Your task to perform on an android device: turn off notifications in google photos Image 0: 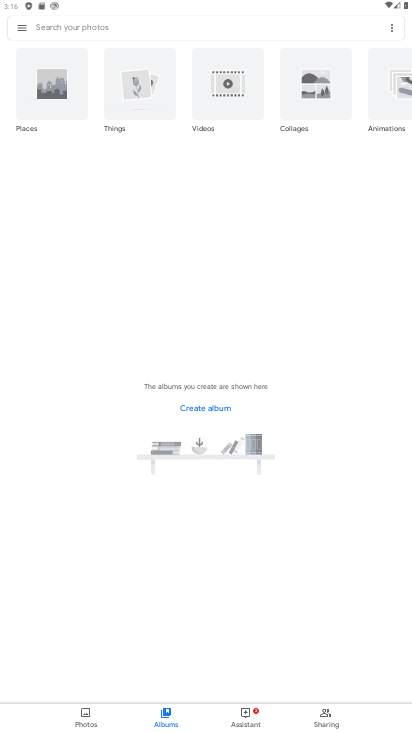
Step 0: drag from (180, 219) to (163, 323)
Your task to perform on an android device: turn off notifications in google photos Image 1: 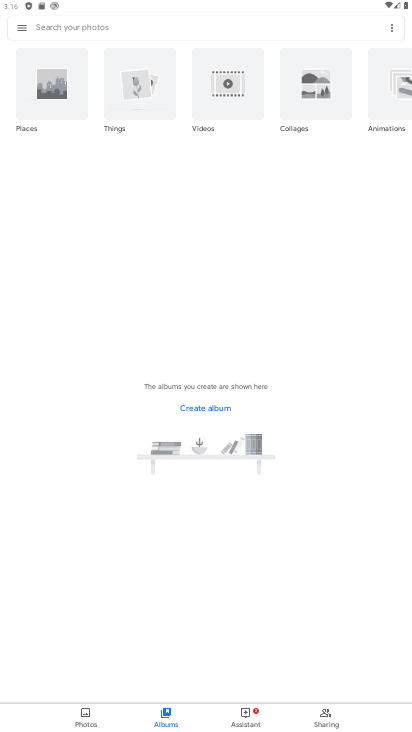
Step 1: click (25, 18)
Your task to perform on an android device: turn off notifications in google photos Image 2: 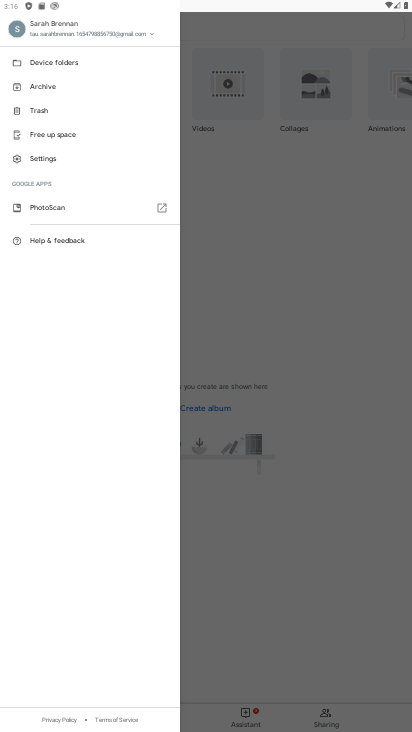
Step 2: click (54, 162)
Your task to perform on an android device: turn off notifications in google photos Image 3: 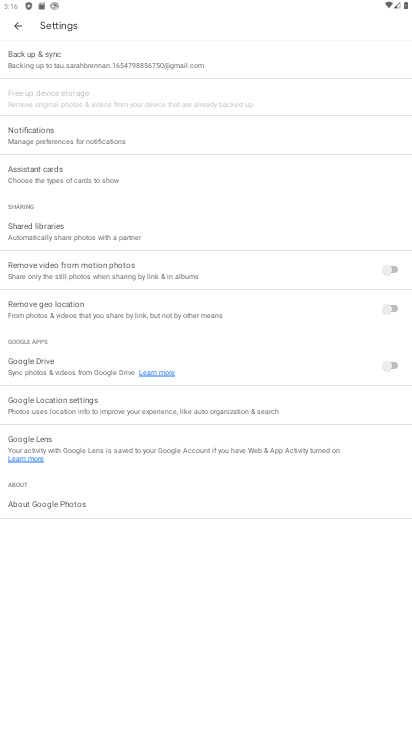
Step 3: click (96, 127)
Your task to perform on an android device: turn off notifications in google photos Image 4: 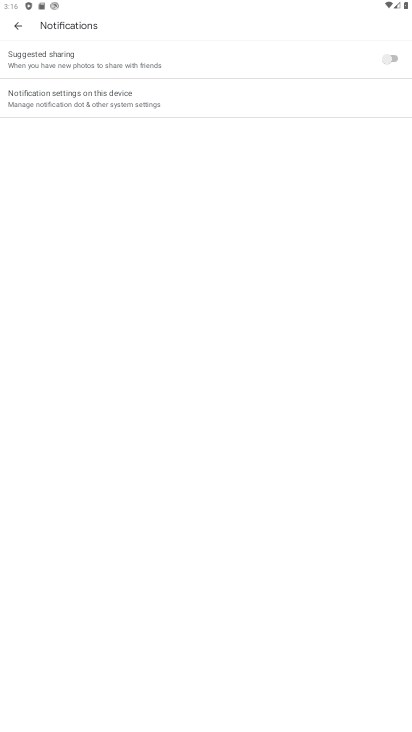
Step 4: click (138, 96)
Your task to perform on an android device: turn off notifications in google photos Image 5: 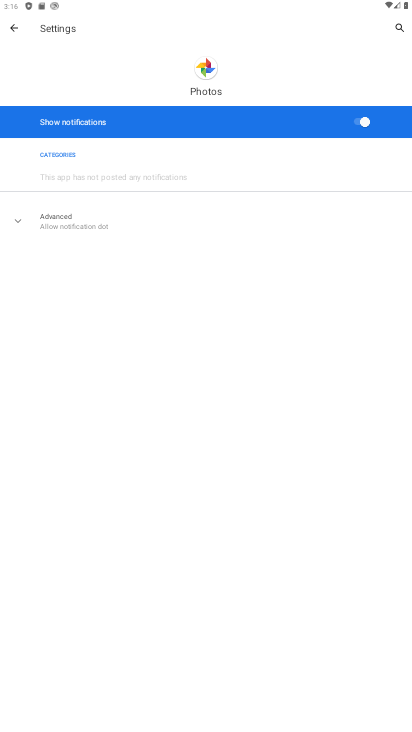
Step 5: click (370, 112)
Your task to perform on an android device: turn off notifications in google photos Image 6: 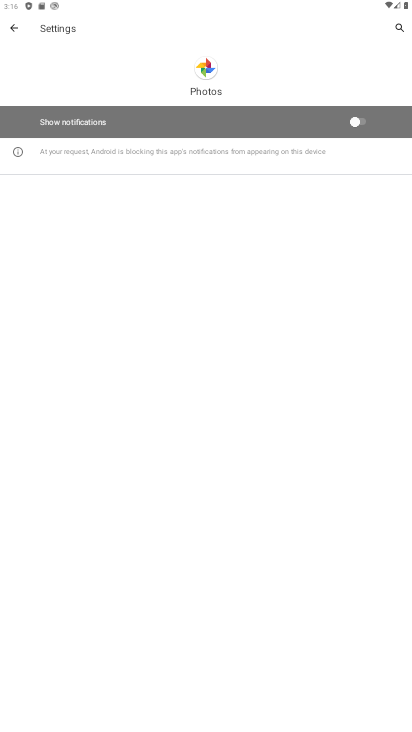
Step 6: task complete